Your task to perform on an android device: Show me productivity apps on the Play Store Image 0: 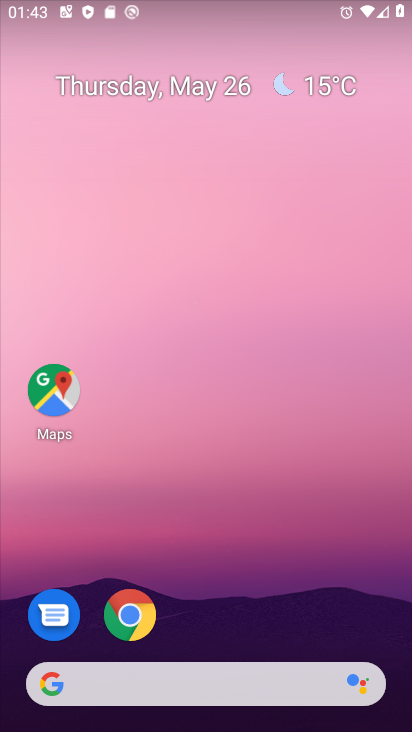
Step 0: drag from (236, 619) to (217, 107)
Your task to perform on an android device: Show me productivity apps on the Play Store Image 1: 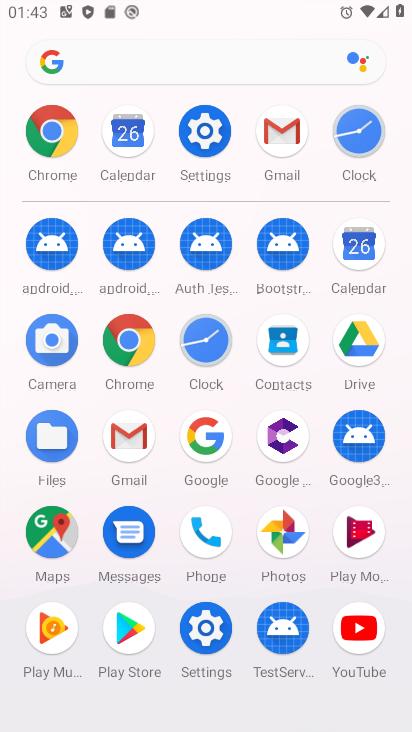
Step 1: click (119, 622)
Your task to perform on an android device: Show me productivity apps on the Play Store Image 2: 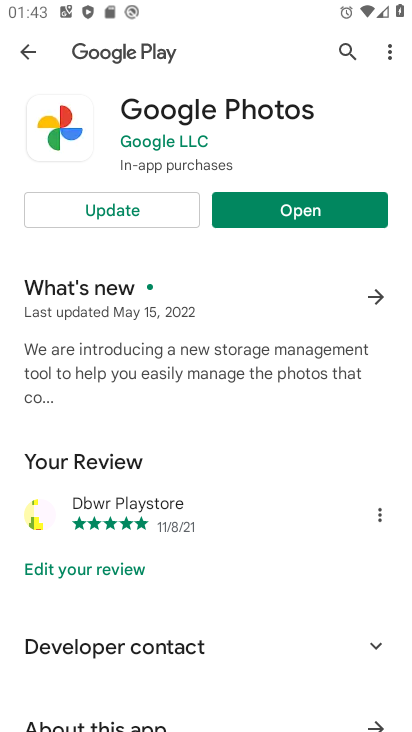
Step 2: click (30, 47)
Your task to perform on an android device: Show me productivity apps on the Play Store Image 3: 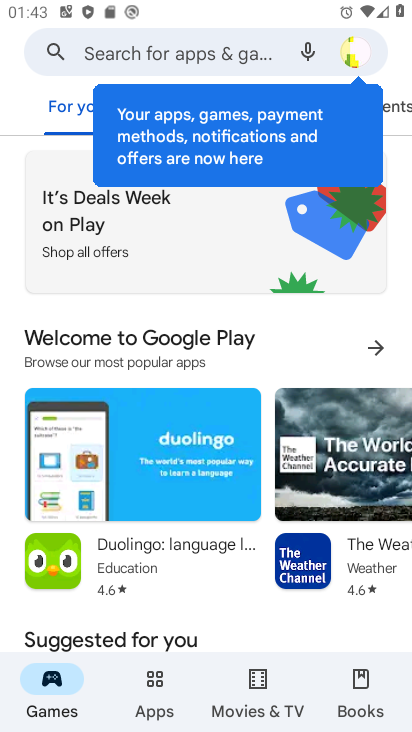
Step 3: click (152, 692)
Your task to perform on an android device: Show me productivity apps on the Play Store Image 4: 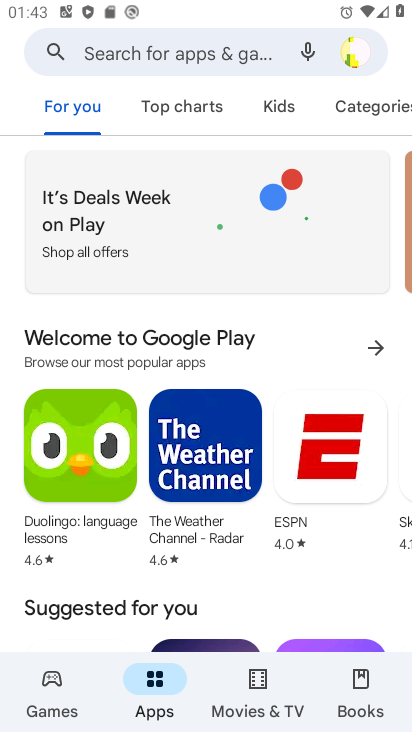
Step 4: drag from (179, 603) to (220, 76)
Your task to perform on an android device: Show me productivity apps on the Play Store Image 5: 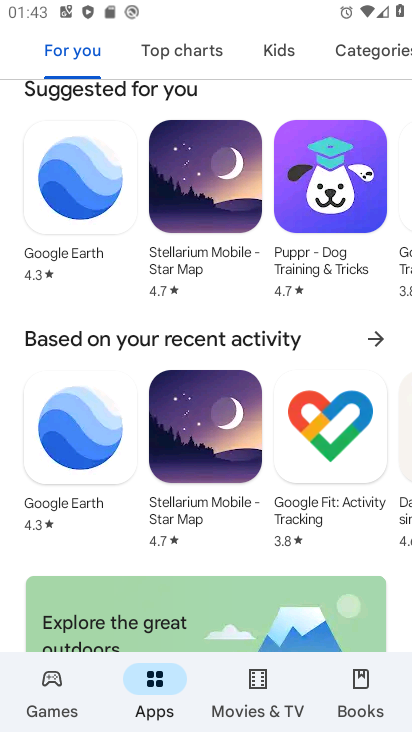
Step 5: drag from (172, 589) to (275, 108)
Your task to perform on an android device: Show me productivity apps on the Play Store Image 6: 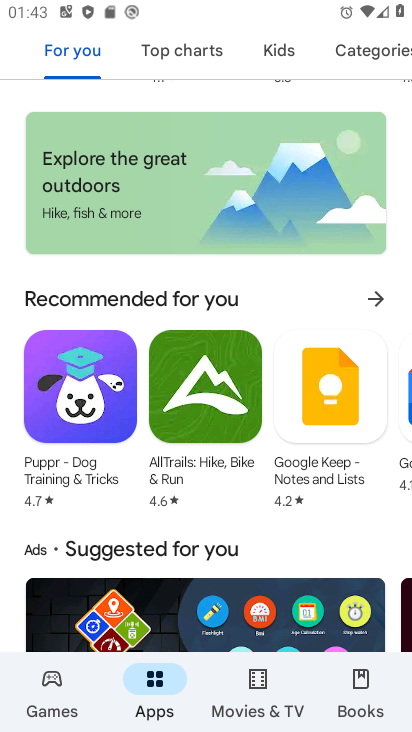
Step 6: drag from (230, 596) to (366, 60)
Your task to perform on an android device: Show me productivity apps on the Play Store Image 7: 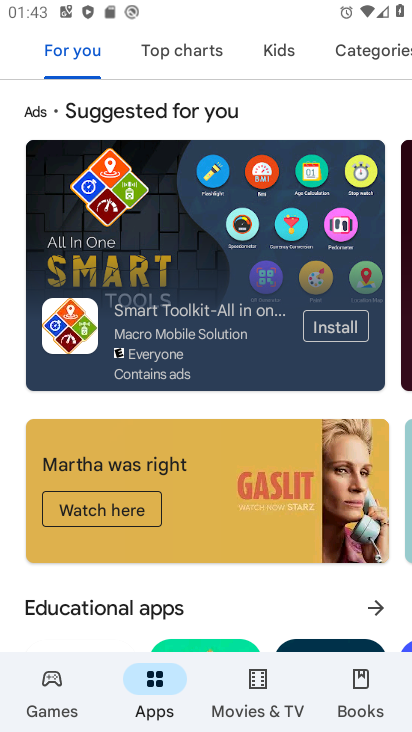
Step 7: drag from (207, 551) to (272, 17)
Your task to perform on an android device: Show me productivity apps on the Play Store Image 8: 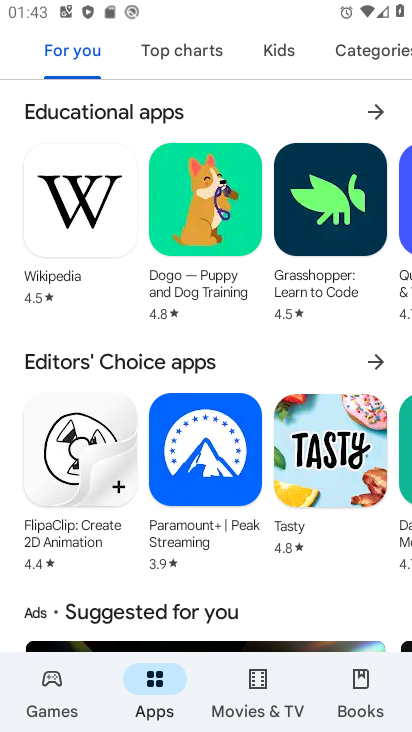
Step 8: drag from (224, 623) to (214, 81)
Your task to perform on an android device: Show me productivity apps on the Play Store Image 9: 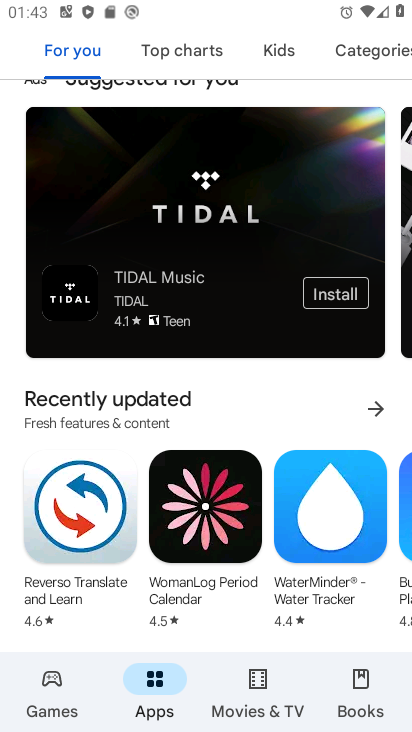
Step 9: drag from (271, 544) to (281, 76)
Your task to perform on an android device: Show me productivity apps on the Play Store Image 10: 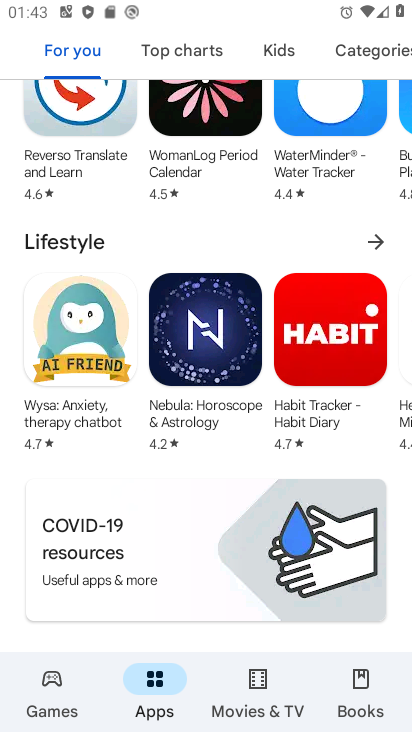
Step 10: drag from (232, 617) to (289, 54)
Your task to perform on an android device: Show me productivity apps on the Play Store Image 11: 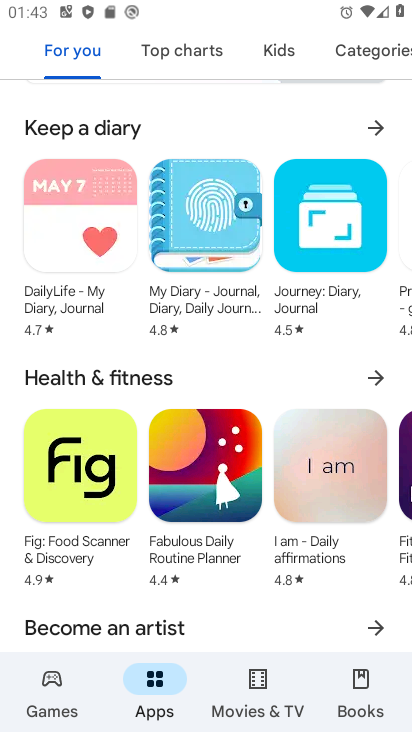
Step 11: drag from (288, 184) to (285, 5)
Your task to perform on an android device: Show me productivity apps on the Play Store Image 12: 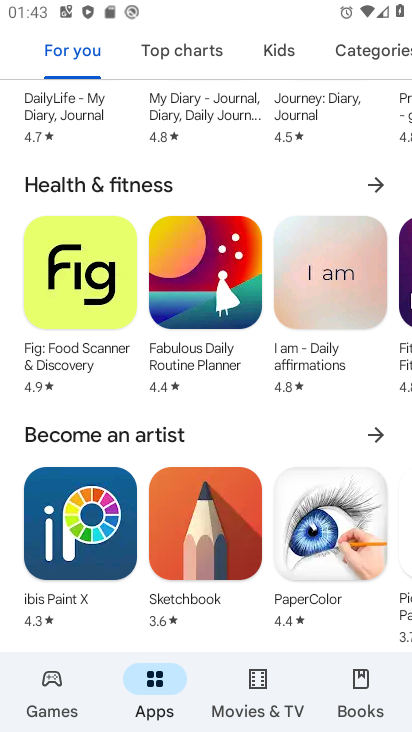
Step 12: drag from (235, 565) to (298, 53)
Your task to perform on an android device: Show me productivity apps on the Play Store Image 13: 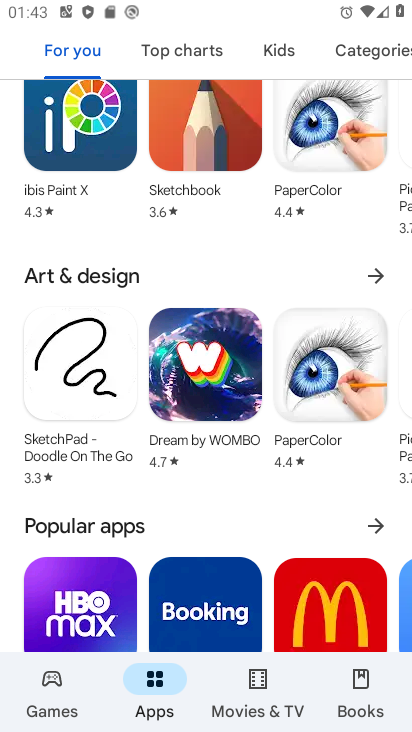
Step 13: drag from (230, 532) to (301, 60)
Your task to perform on an android device: Show me productivity apps on the Play Store Image 14: 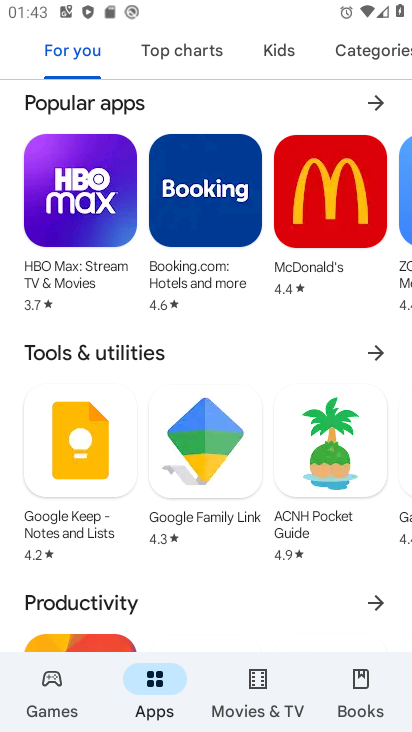
Step 14: drag from (231, 616) to (299, 260)
Your task to perform on an android device: Show me productivity apps on the Play Store Image 15: 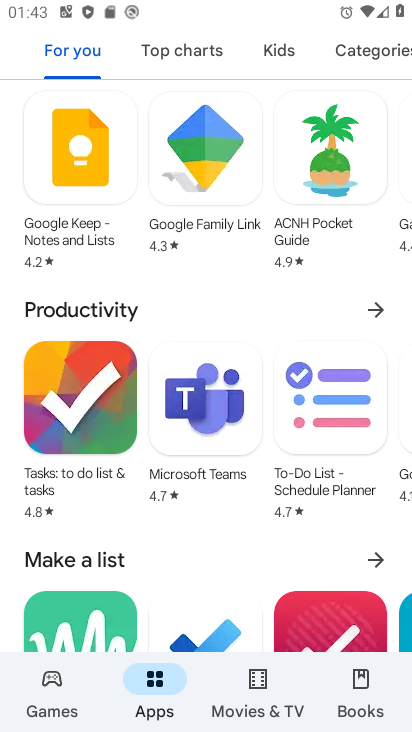
Step 15: click (382, 309)
Your task to perform on an android device: Show me productivity apps on the Play Store Image 16: 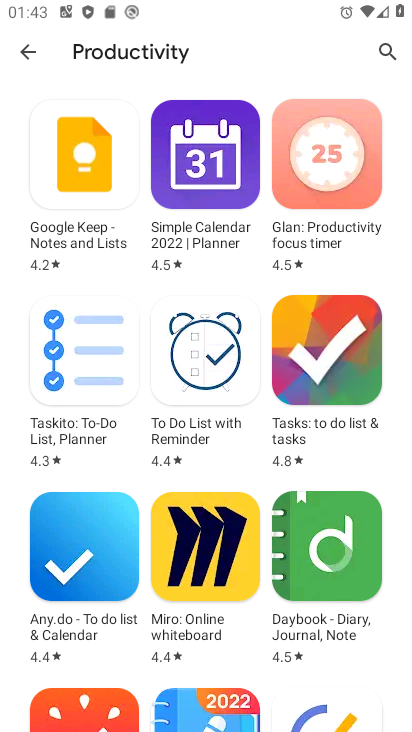
Step 16: task complete